Your task to perform on an android device: install app "PlayWell" Image 0: 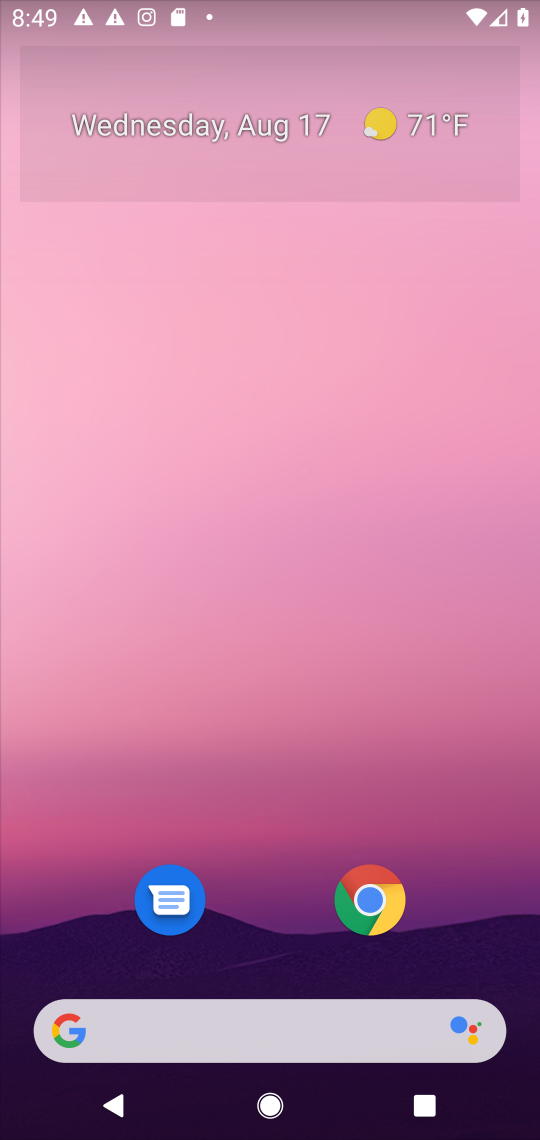
Step 0: drag from (261, 950) to (379, 107)
Your task to perform on an android device: install app "PlayWell" Image 1: 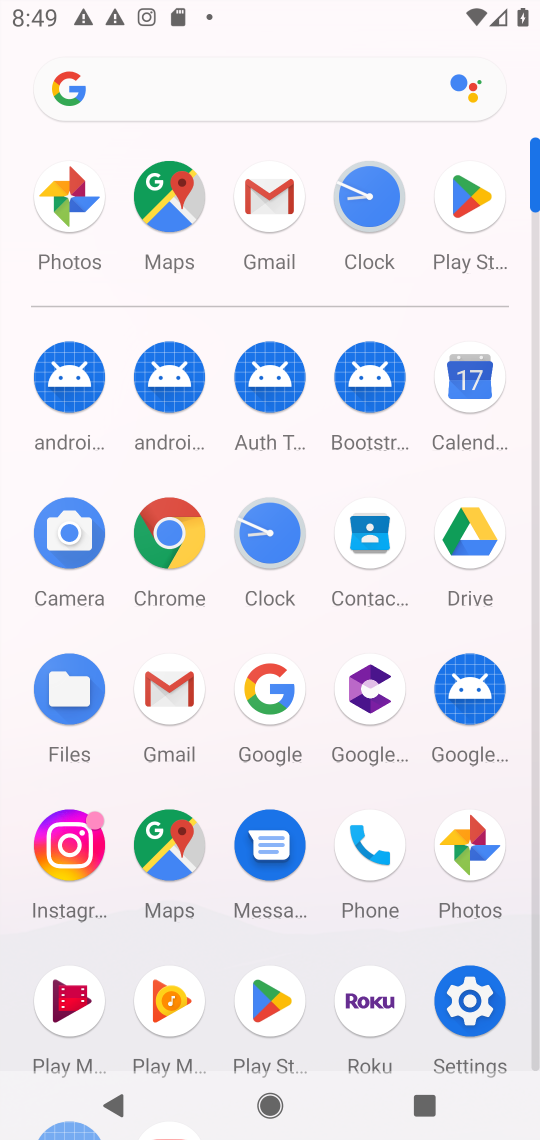
Step 1: click (485, 236)
Your task to perform on an android device: install app "PlayWell" Image 2: 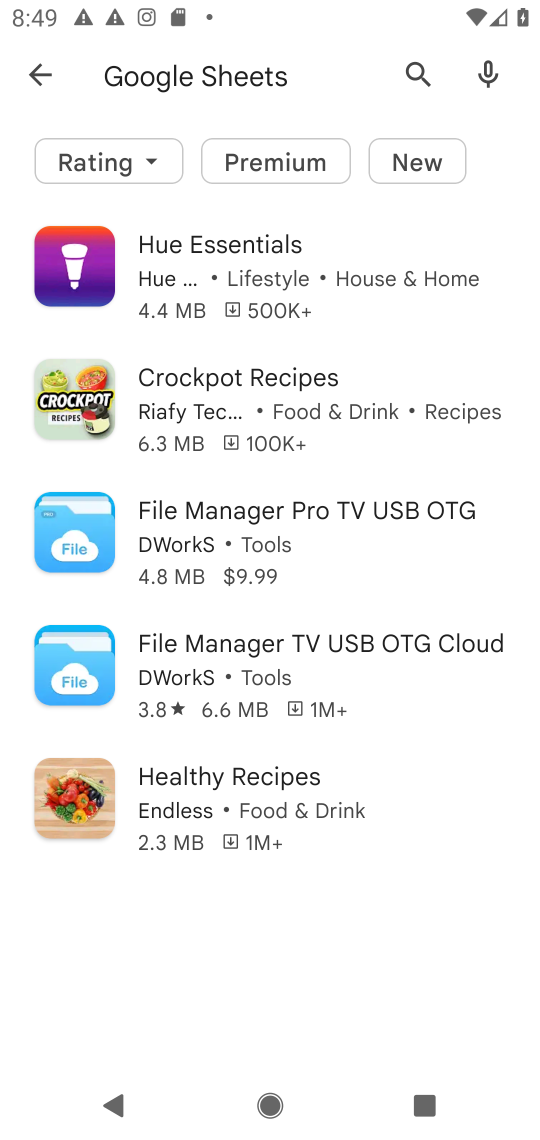
Step 2: click (45, 70)
Your task to perform on an android device: install app "PlayWell" Image 3: 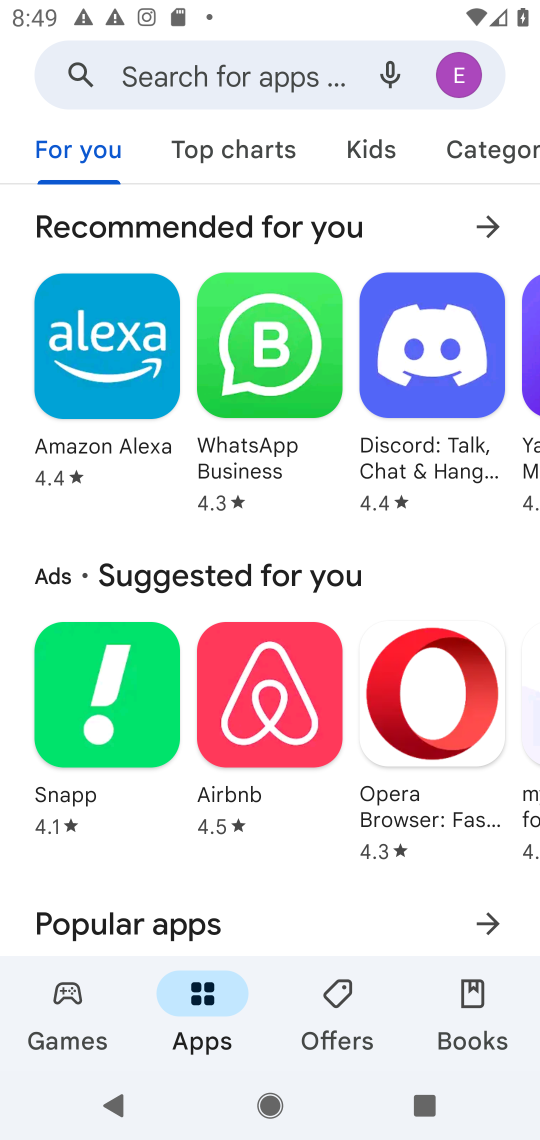
Step 3: click (239, 93)
Your task to perform on an android device: install app "PlayWell" Image 4: 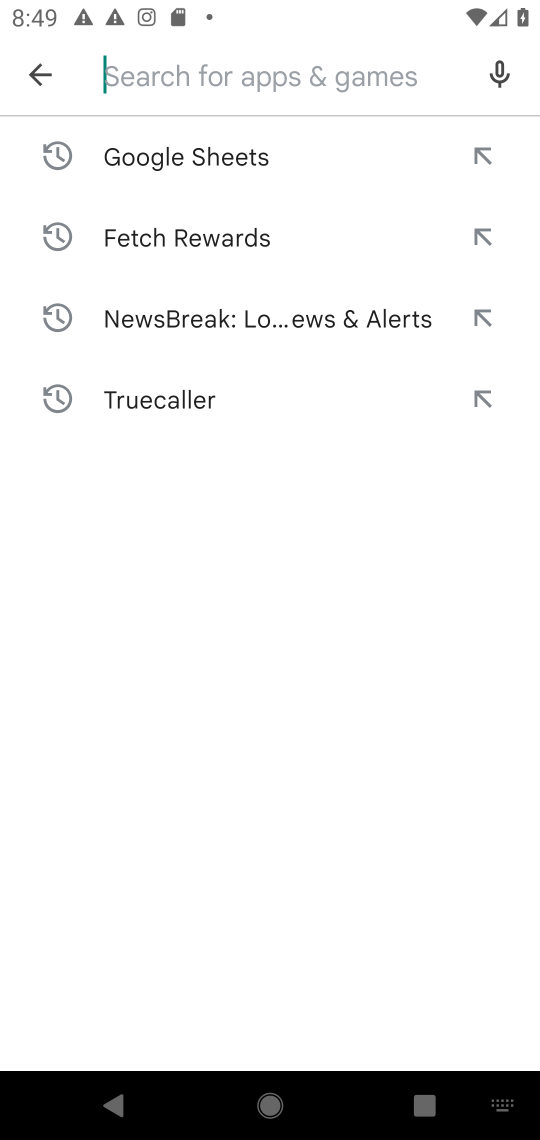
Step 4: type "PlayWell"
Your task to perform on an android device: install app "PlayWell" Image 5: 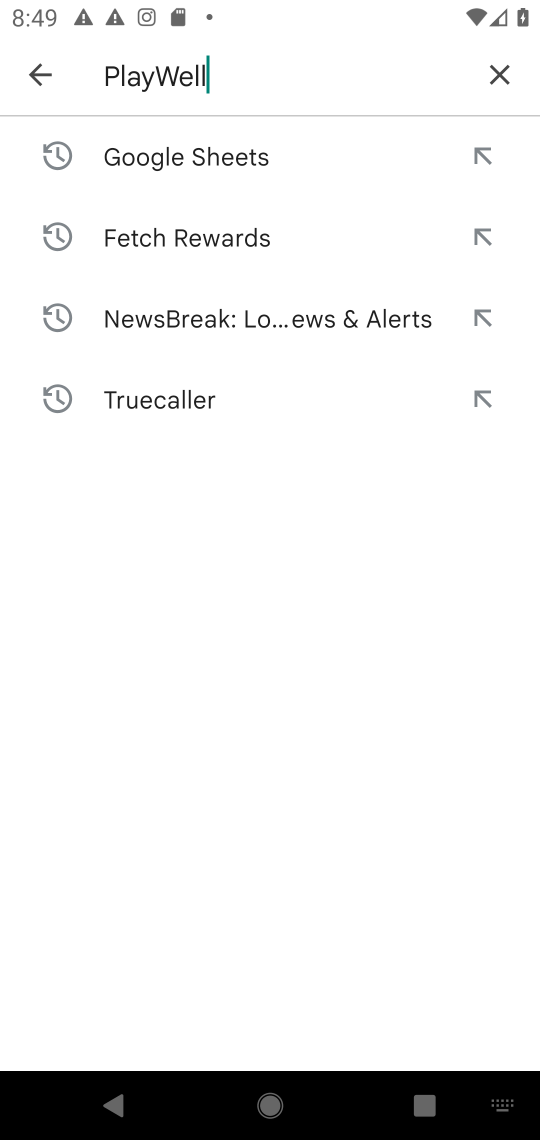
Step 5: press enter
Your task to perform on an android device: install app "PlayWell" Image 6: 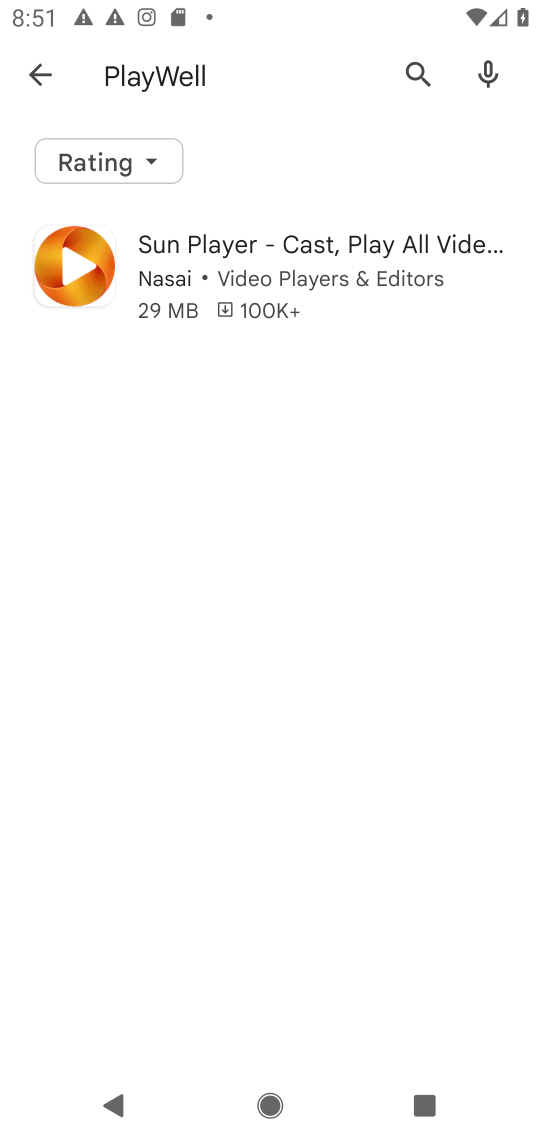
Step 6: task complete